Your task to perform on an android device: set the stopwatch Image 0: 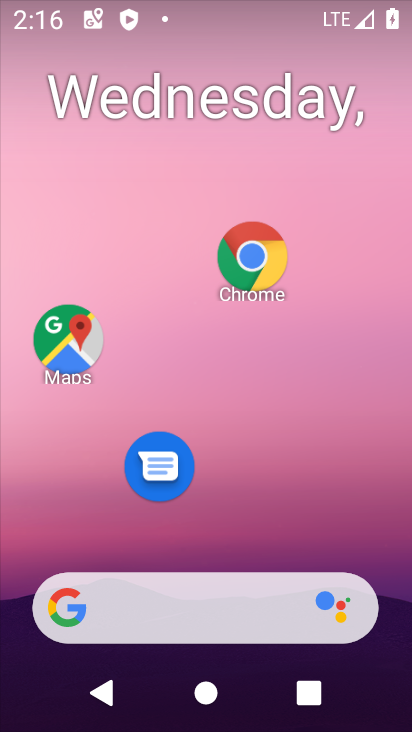
Step 0: drag from (287, 400) to (235, 14)
Your task to perform on an android device: set the stopwatch Image 1: 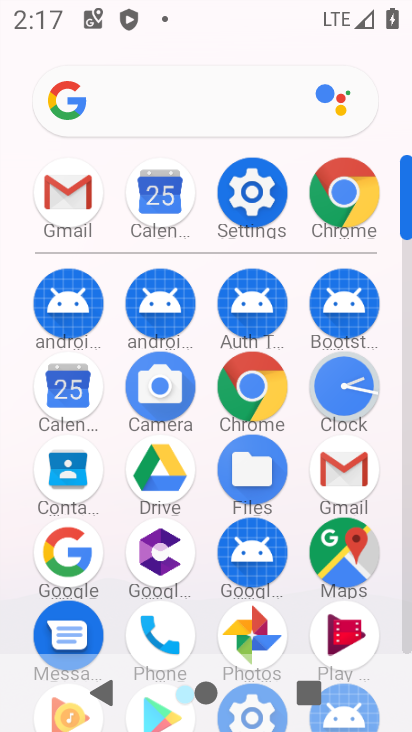
Step 1: click (359, 393)
Your task to perform on an android device: set the stopwatch Image 2: 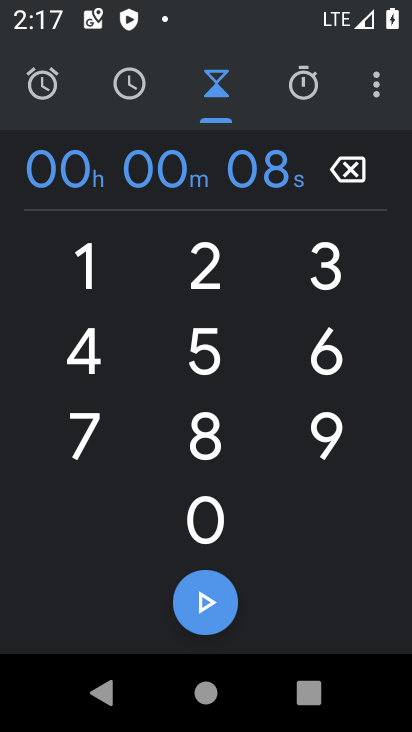
Step 2: click (306, 76)
Your task to perform on an android device: set the stopwatch Image 3: 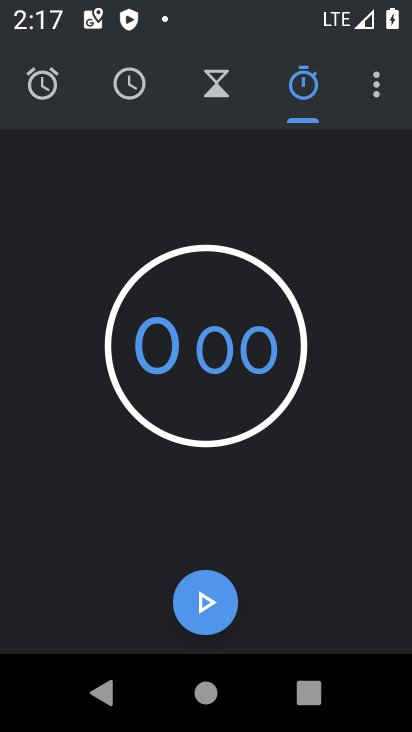
Step 3: click (207, 611)
Your task to perform on an android device: set the stopwatch Image 4: 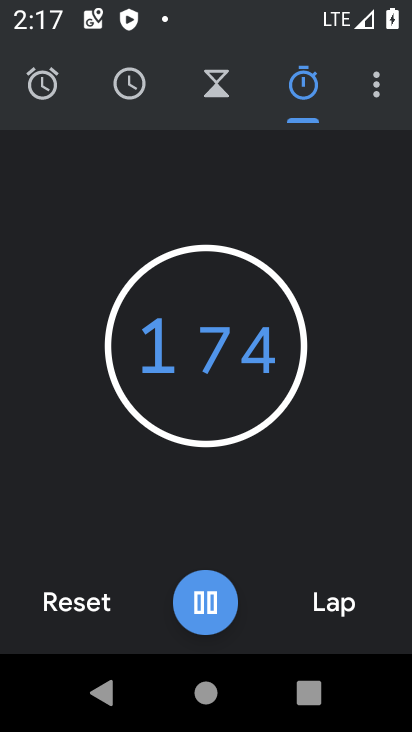
Step 4: task complete